Your task to perform on an android device: turn on notifications settings in the gmail app Image 0: 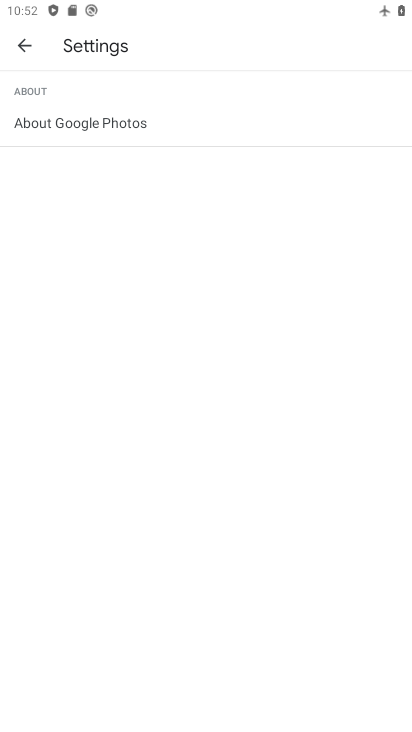
Step 0: press home button
Your task to perform on an android device: turn on notifications settings in the gmail app Image 1: 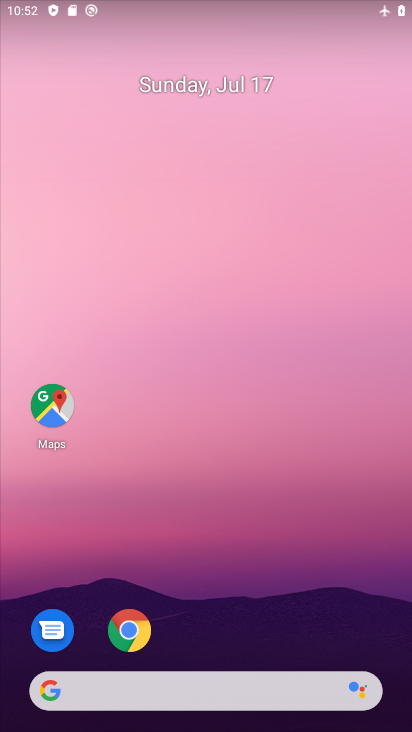
Step 1: drag from (221, 648) to (161, 6)
Your task to perform on an android device: turn on notifications settings in the gmail app Image 2: 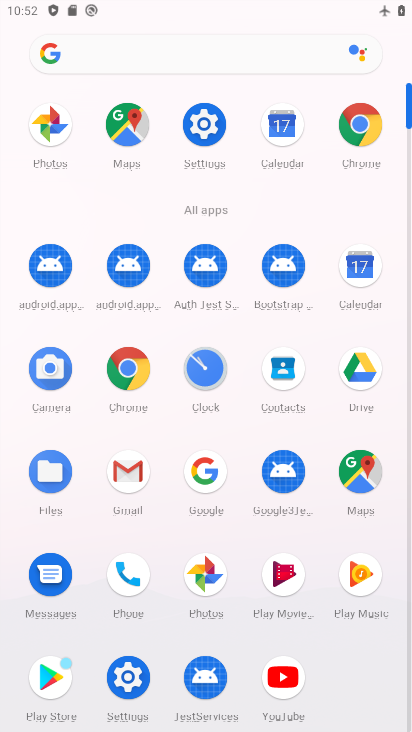
Step 2: click (147, 479)
Your task to perform on an android device: turn on notifications settings in the gmail app Image 3: 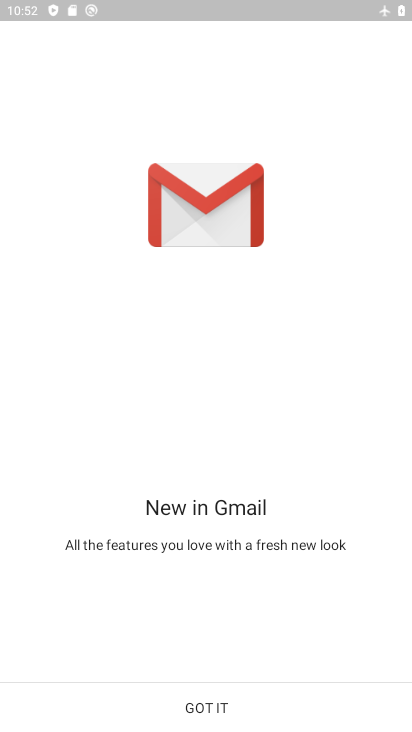
Step 3: click (197, 712)
Your task to perform on an android device: turn on notifications settings in the gmail app Image 4: 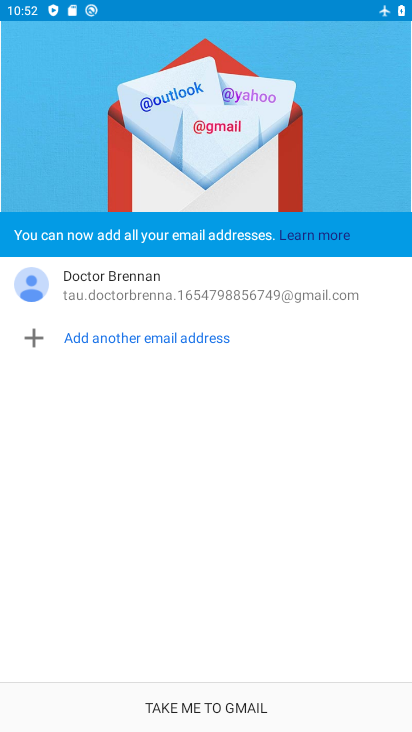
Step 4: click (193, 711)
Your task to perform on an android device: turn on notifications settings in the gmail app Image 5: 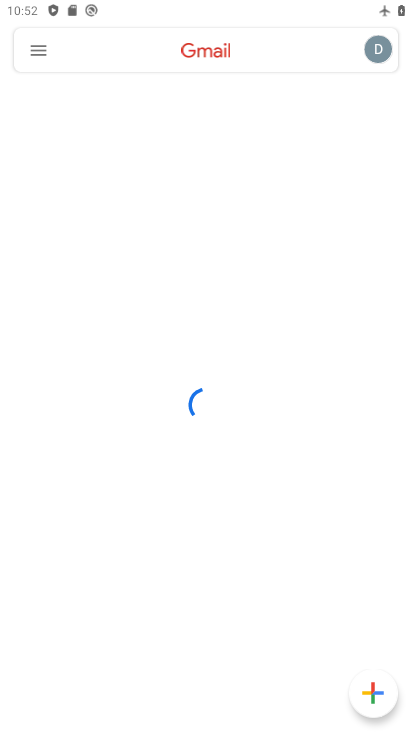
Step 5: click (35, 54)
Your task to perform on an android device: turn on notifications settings in the gmail app Image 6: 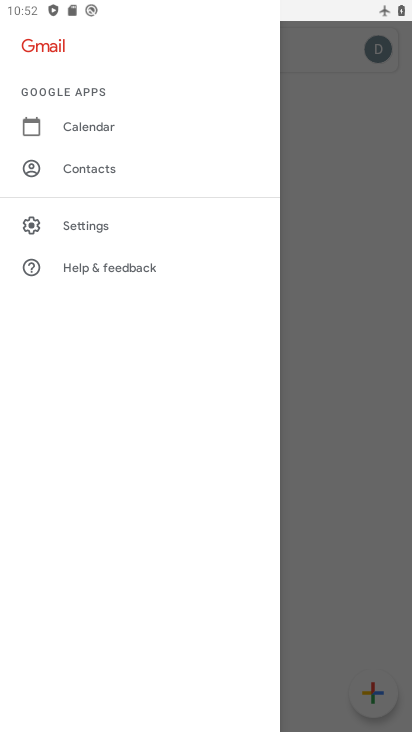
Step 6: click (93, 236)
Your task to perform on an android device: turn on notifications settings in the gmail app Image 7: 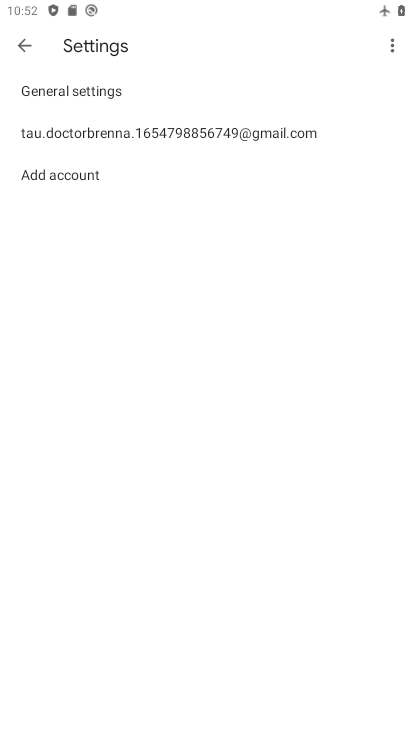
Step 7: click (96, 110)
Your task to perform on an android device: turn on notifications settings in the gmail app Image 8: 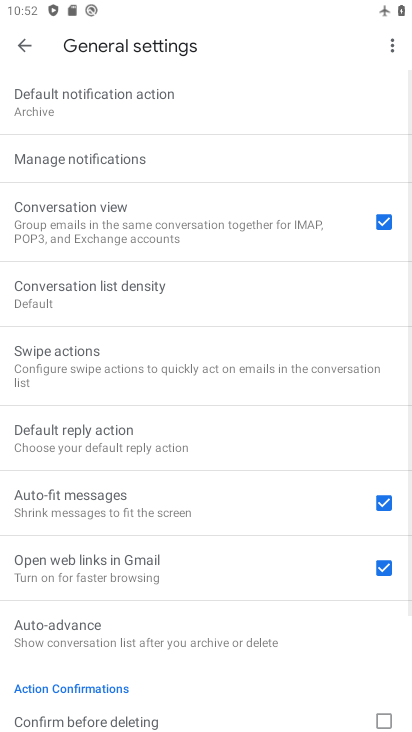
Step 8: click (186, 163)
Your task to perform on an android device: turn on notifications settings in the gmail app Image 9: 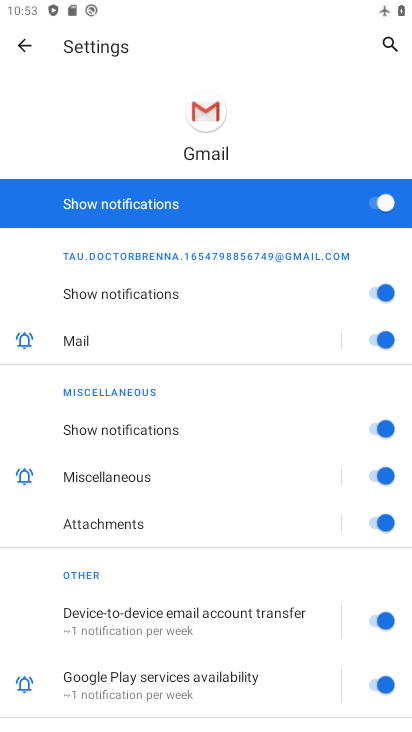
Step 9: task complete